Your task to perform on an android device: What's the weather going to be tomorrow? Image 0: 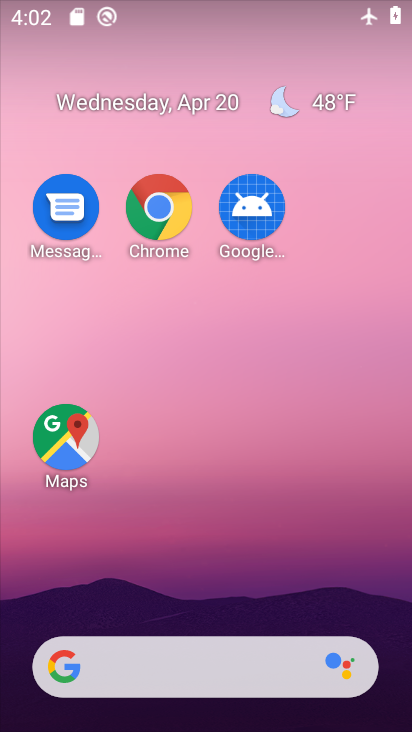
Step 0: drag from (279, 578) to (307, 128)
Your task to perform on an android device: What's the weather going to be tomorrow? Image 1: 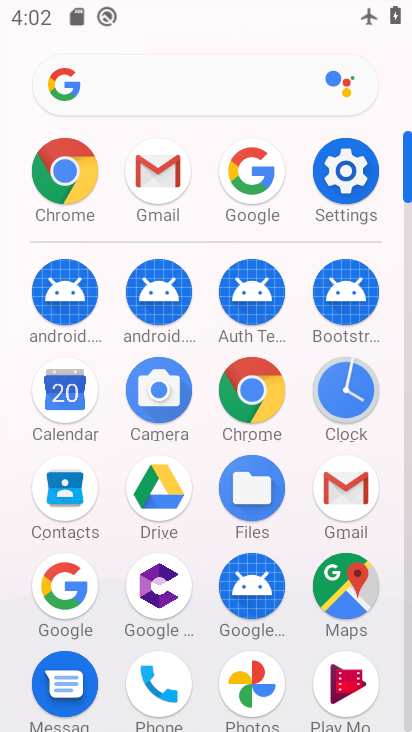
Step 1: click (82, 592)
Your task to perform on an android device: What's the weather going to be tomorrow? Image 2: 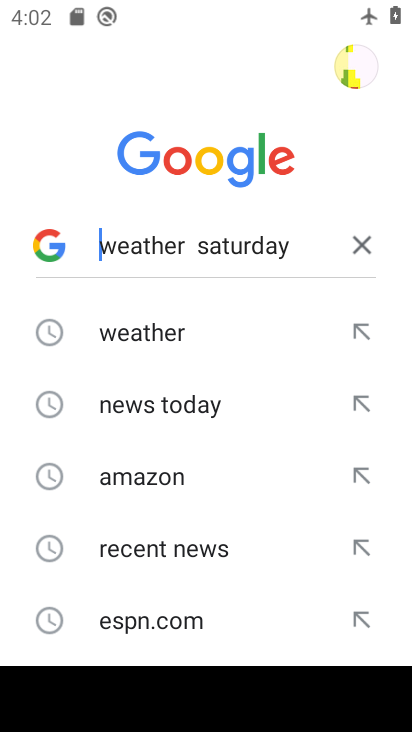
Step 2: click (148, 330)
Your task to perform on an android device: What's the weather going to be tomorrow? Image 3: 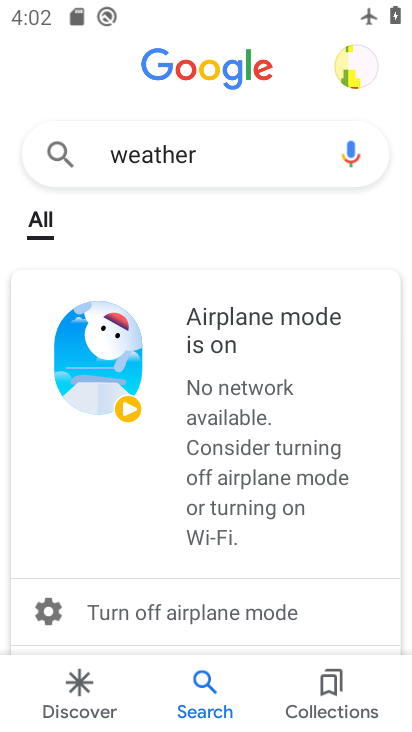
Step 3: task complete